Your task to perform on an android device: toggle airplane mode Image 0: 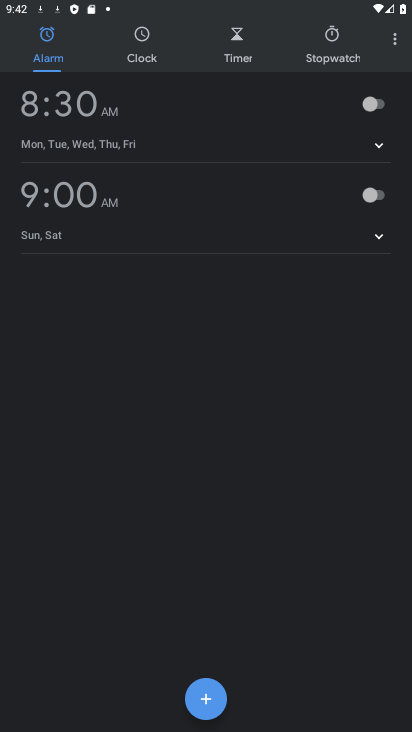
Step 0: press home button
Your task to perform on an android device: toggle airplane mode Image 1: 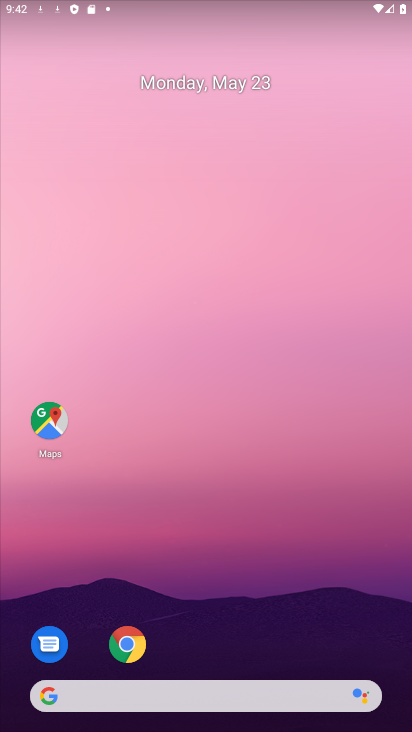
Step 1: drag from (225, 690) to (119, 76)
Your task to perform on an android device: toggle airplane mode Image 2: 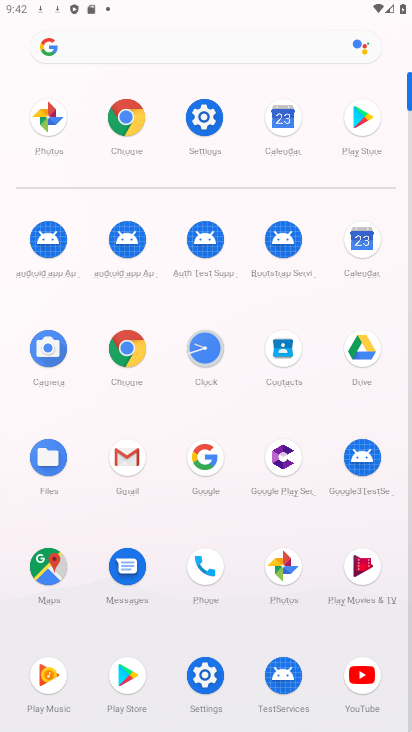
Step 2: click (191, 135)
Your task to perform on an android device: toggle airplane mode Image 3: 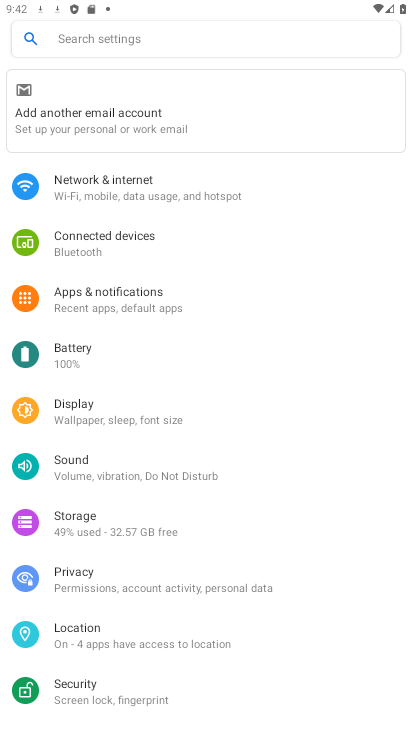
Step 3: click (129, 196)
Your task to perform on an android device: toggle airplane mode Image 4: 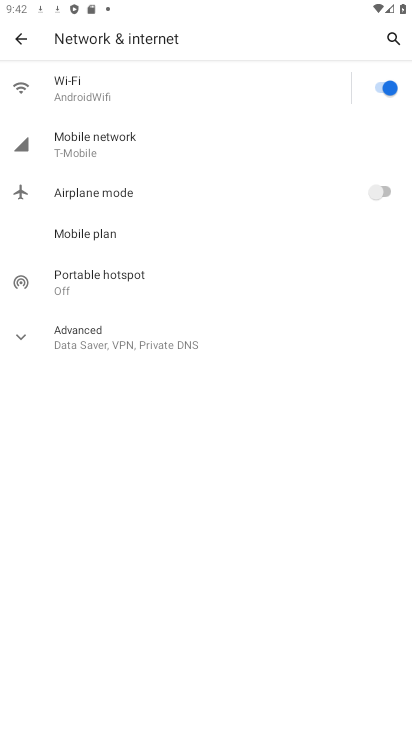
Step 4: task complete